Your task to perform on an android device: Turn on the flashlight Image 0: 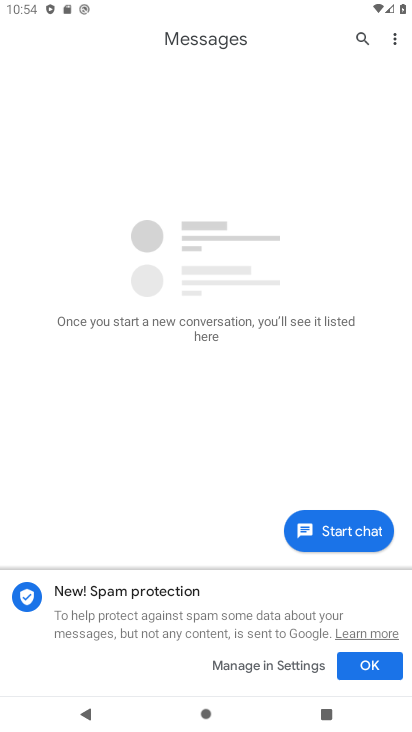
Step 0: press home button
Your task to perform on an android device: Turn on the flashlight Image 1: 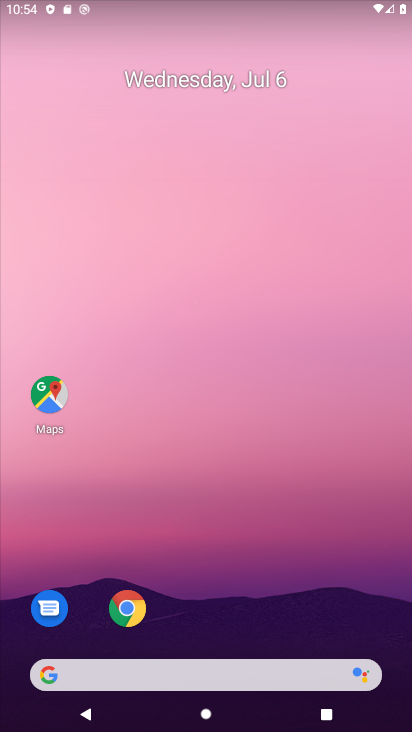
Step 1: drag from (192, 640) to (147, 45)
Your task to perform on an android device: Turn on the flashlight Image 2: 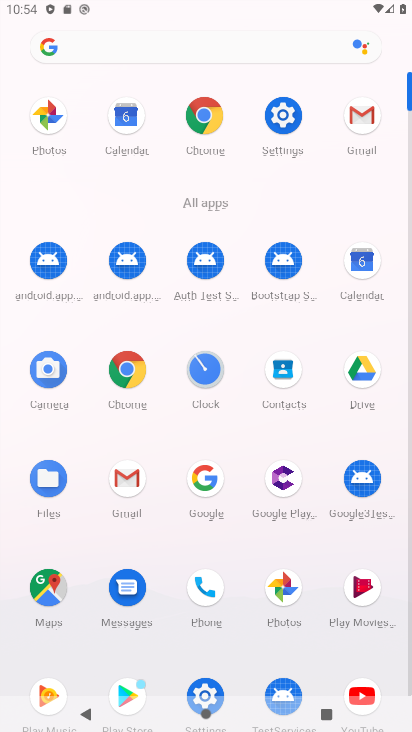
Step 2: click (280, 113)
Your task to perform on an android device: Turn on the flashlight Image 3: 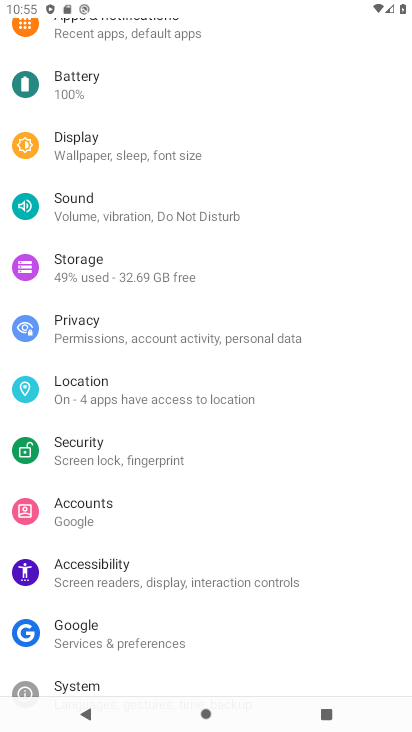
Step 3: task complete